Your task to perform on an android device: change the upload size in google photos Image 0: 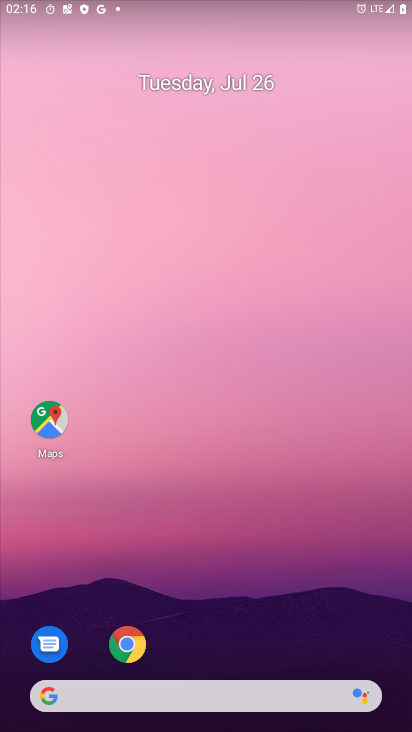
Step 0: drag from (255, 672) to (284, 35)
Your task to perform on an android device: change the upload size in google photos Image 1: 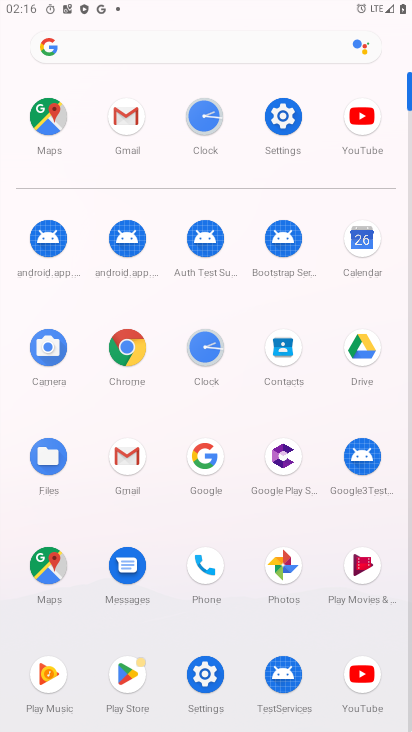
Step 1: click (284, 567)
Your task to perform on an android device: change the upload size in google photos Image 2: 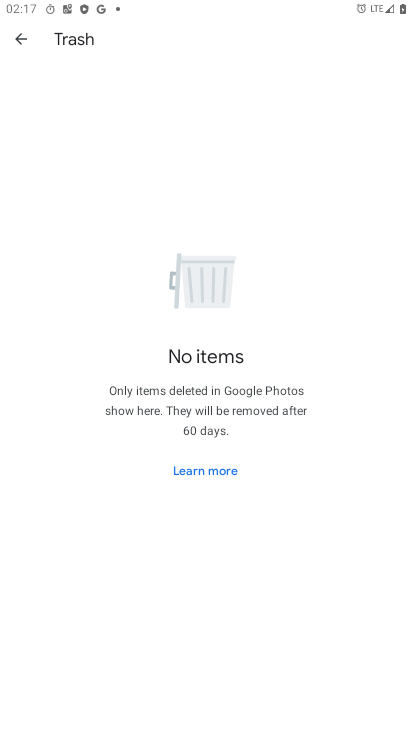
Step 2: click (19, 36)
Your task to perform on an android device: change the upload size in google photos Image 3: 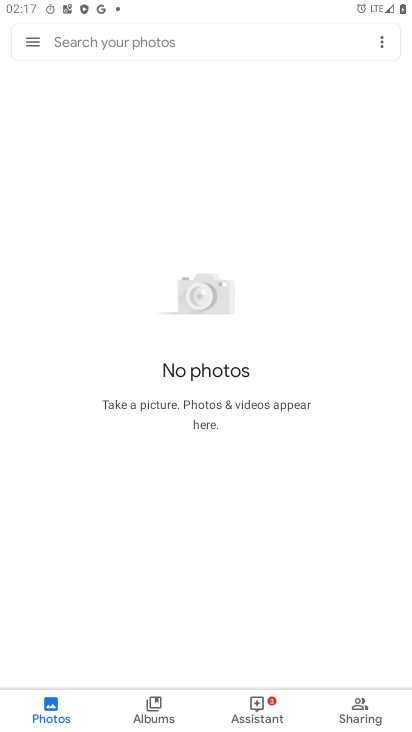
Step 3: click (28, 44)
Your task to perform on an android device: change the upload size in google photos Image 4: 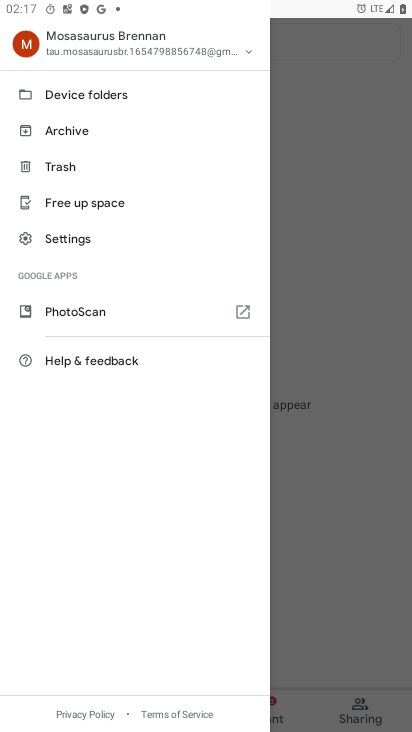
Step 4: click (61, 241)
Your task to perform on an android device: change the upload size in google photos Image 5: 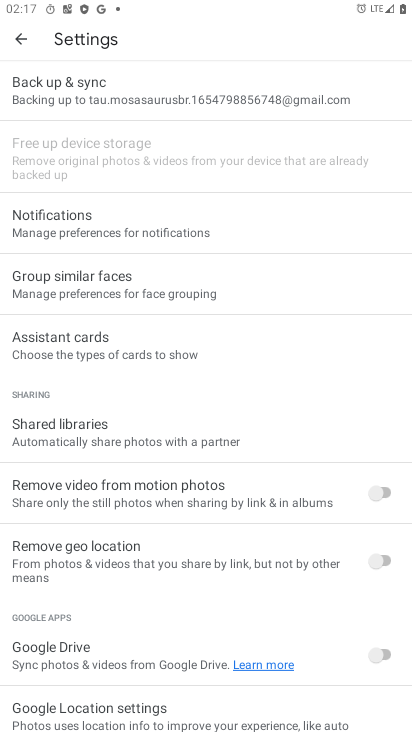
Step 5: click (77, 99)
Your task to perform on an android device: change the upload size in google photos Image 6: 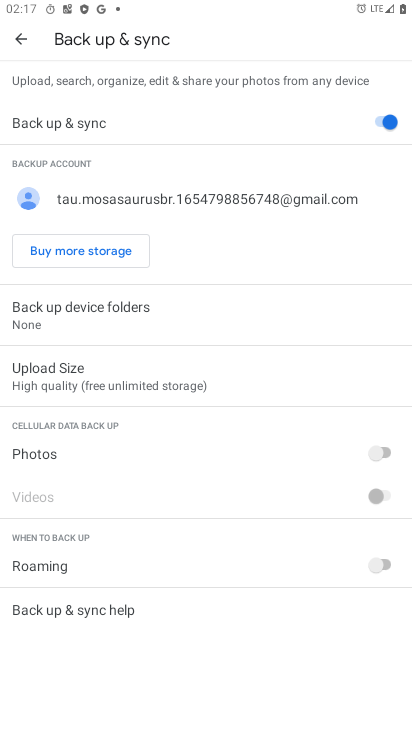
Step 6: click (40, 378)
Your task to perform on an android device: change the upload size in google photos Image 7: 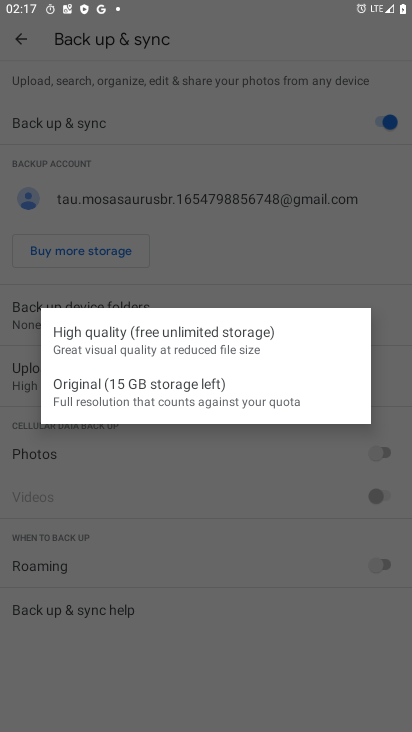
Step 7: click (92, 395)
Your task to perform on an android device: change the upload size in google photos Image 8: 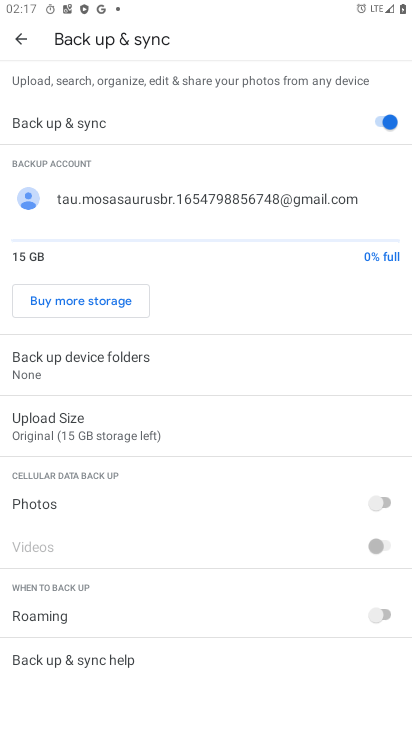
Step 8: task complete